Your task to perform on an android device: See recent photos Image 0: 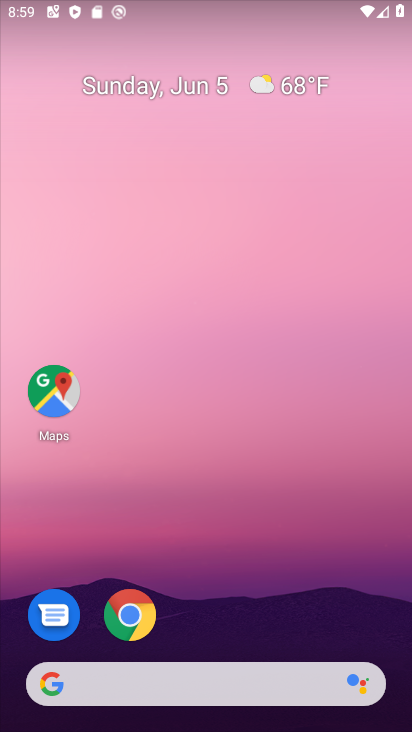
Step 0: drag from (134, 718) to (128, 288)
Your task to perform on an android device: See recent photos Image 1: 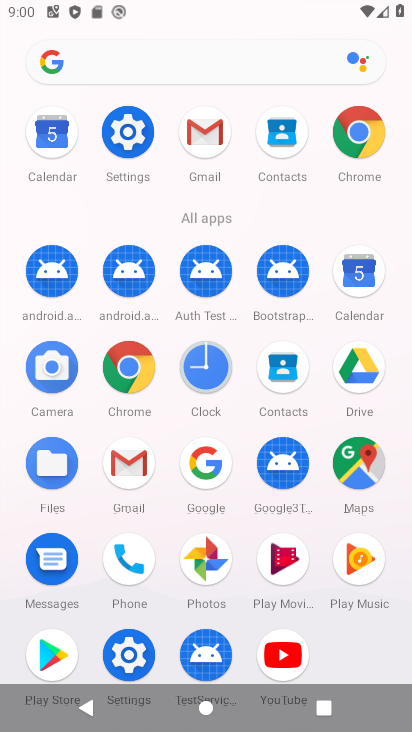
Step 1: click (191, 567)
Your task to perform on an android device: See recent photos Image 2: 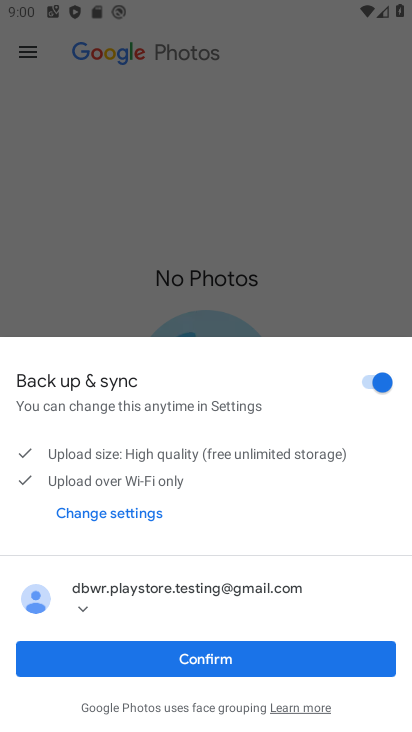
Step 2: click (227, 653)
Your task to perform on an android device: See recent photos Image 3: 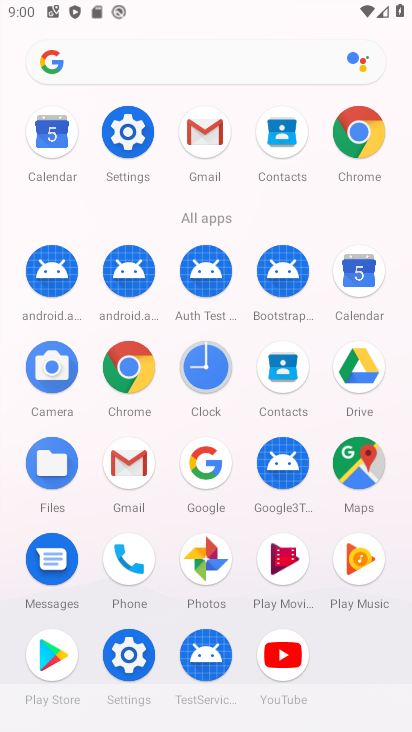
Step 3: click (202, 560)
Your task to perform on an android device: See recent photos Image 4: 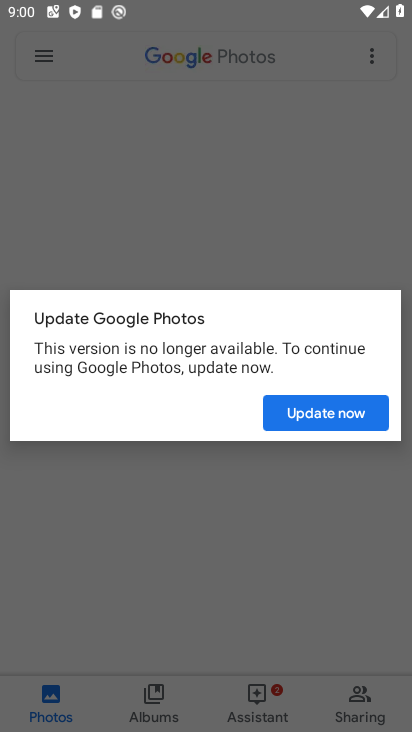
Step 4: click (310, 413)
Your task to perform on an android device: See recent photos Image 5: 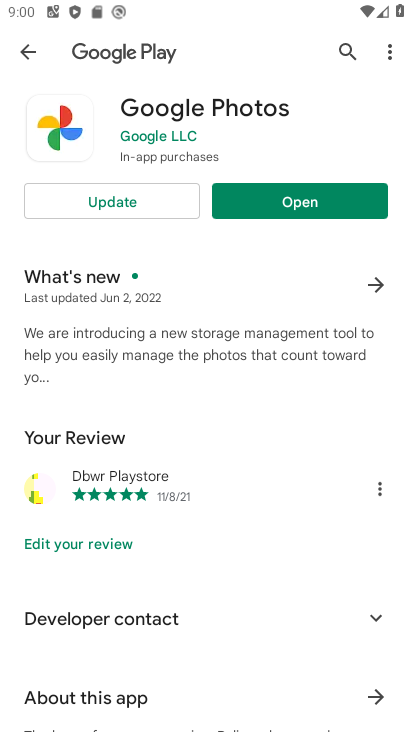
Step 5: click (121, 217)
Your task to perform on an android device: See recent photos Image 6: 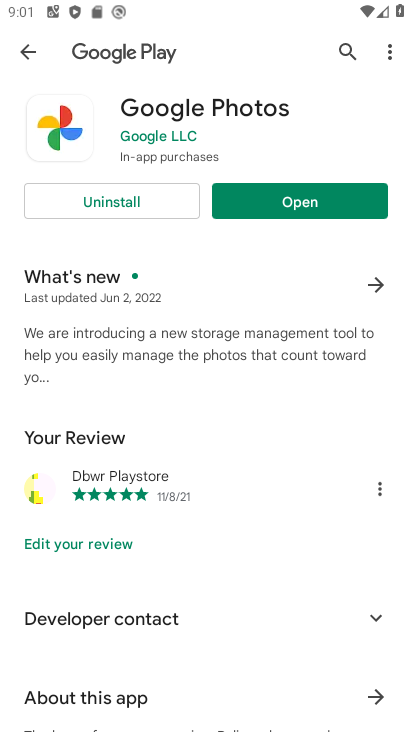
Step 6: click (282, 203)
Your task to perform on an android device: See recent photos Image 7: 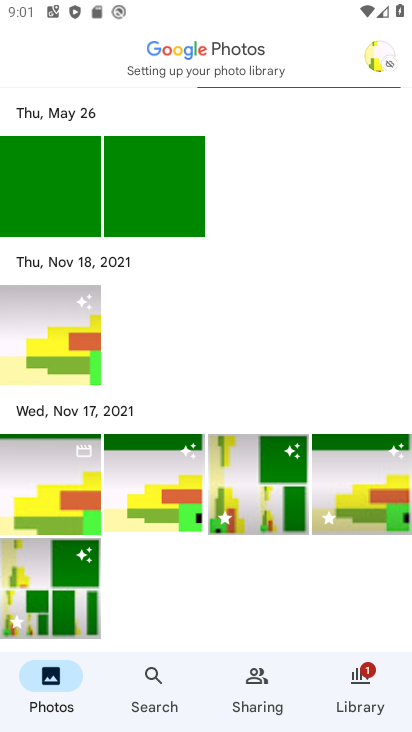
Step 7: click (65, 195)
Your task to perform on an android device: See recent photos Image 8: 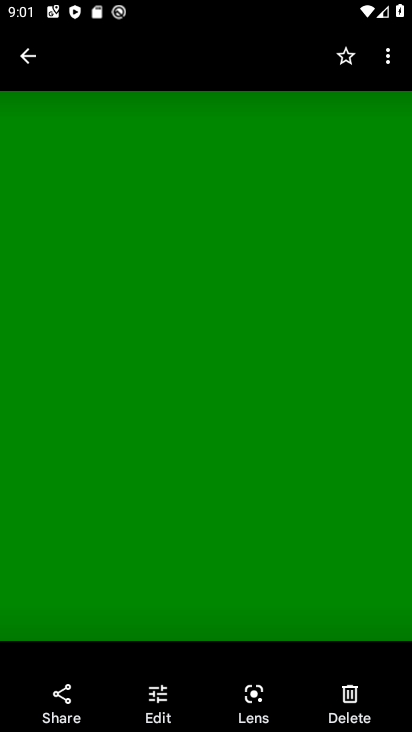
Step 8: task complete